Your task to perform on an android device: Show me popular games on the Play Store Image 0: 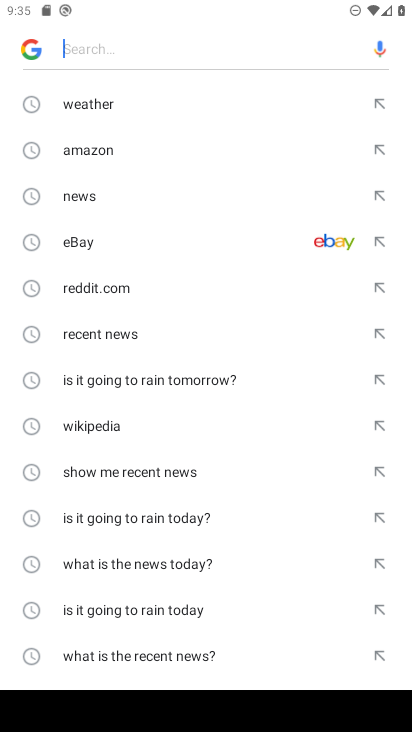
Step 0: press home button
Your task to perform on an android device: Show me popular games on the Play Store Image 1: 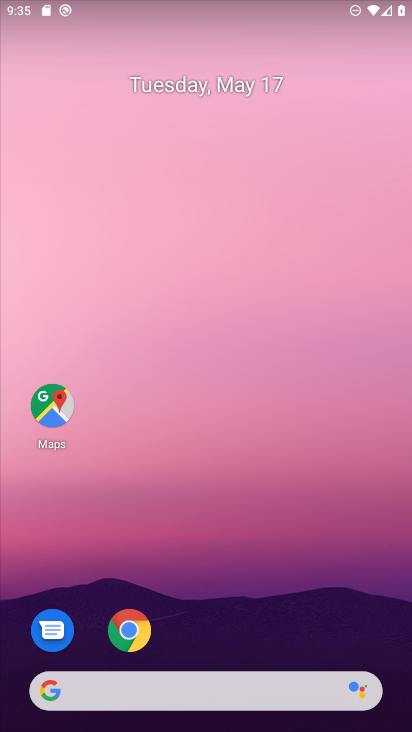
Step 1: drag from (322, 625) to (330, 147)
Your task to perform on an android device: Show me popular games on the Play Store Image 2: 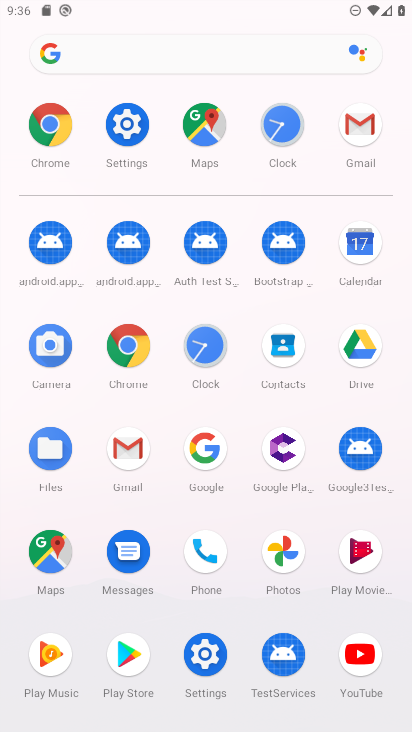
Step 2: click (126, 664)
Your task to perform on an android device: Show me popular games on the Play Store Image 3: 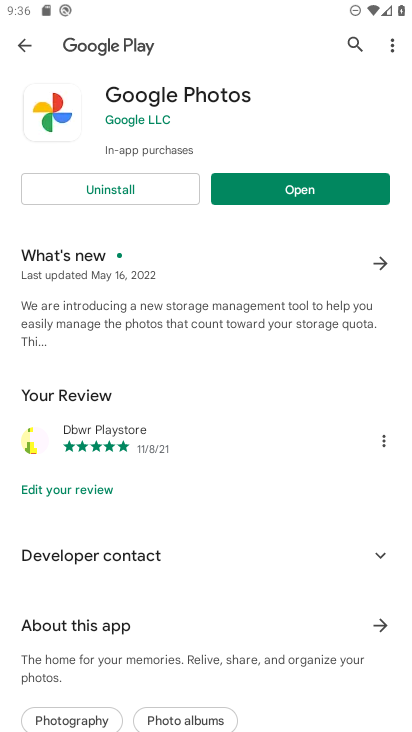
Step 3: click (29, 44)
Your task to perform on an android device: Show me popular games on the Play Store Image 4: 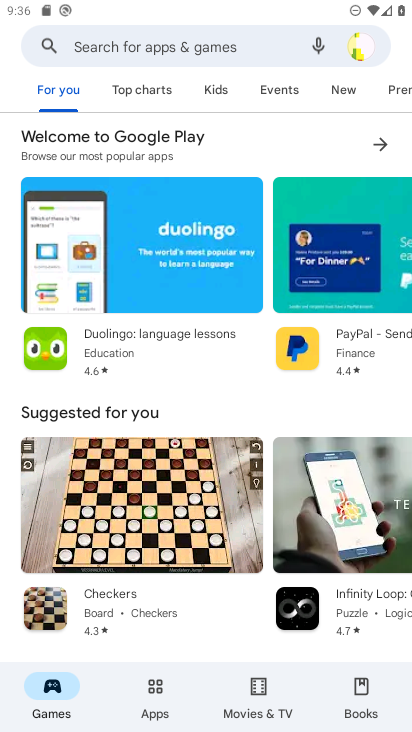
Step 4: task complete